Your task to perform on an android device: check data usage Image 0: 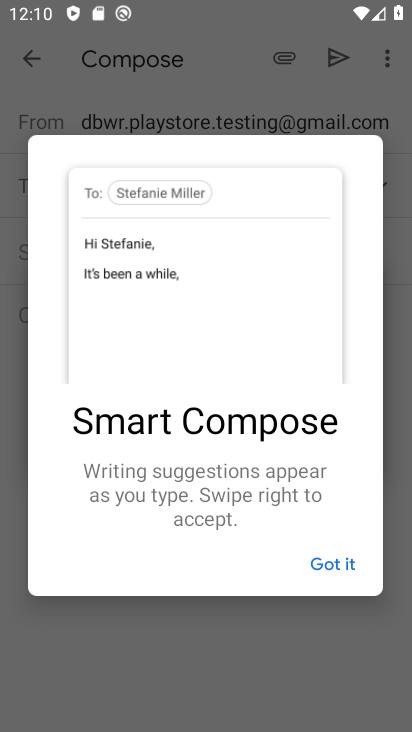
Step 0: press home button
Your task to perform on an android device: check data usage Image 1: 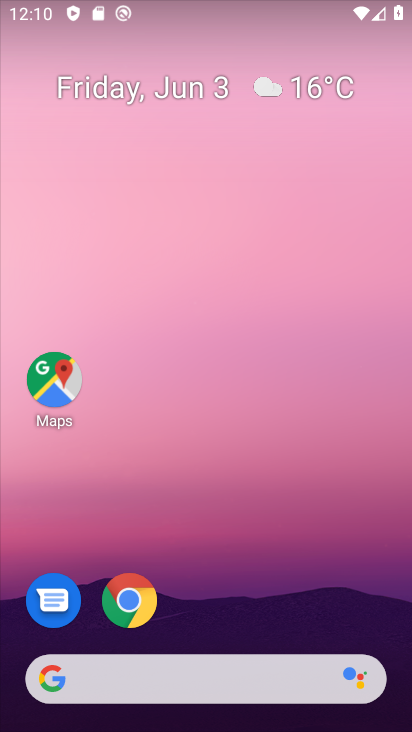
Step 1: drag from (270, 574) to (238, 200)
Your task to perform on an android device: check data usage Image 2: 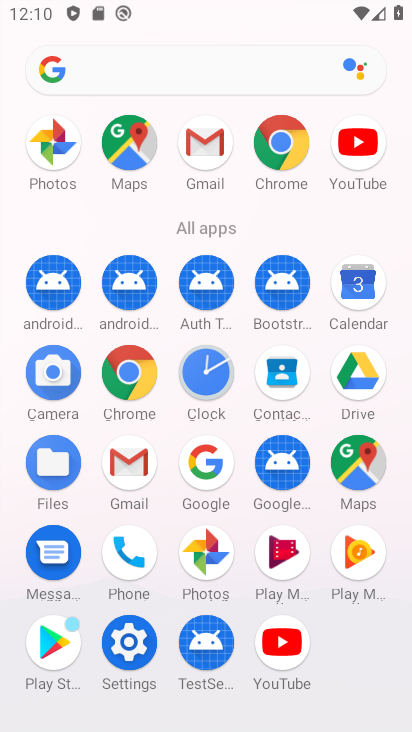
Step 2: click (136, 641)
Your task to perform on an android device: check data usage Image 3: 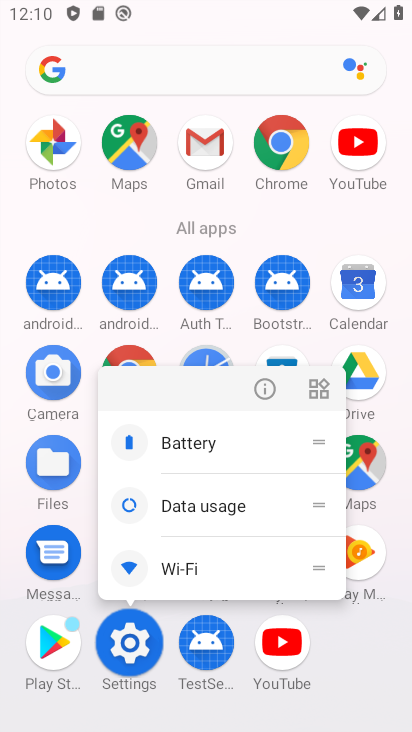
Step 3: click (136, 641)
Your task to perform on an android device: check data usage Image 4: 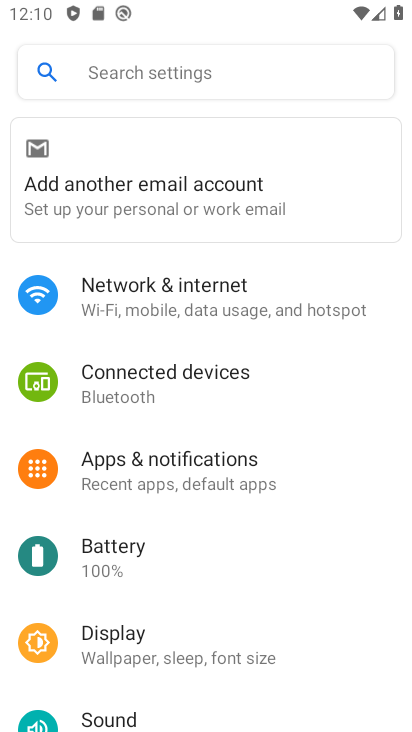
Step 4: drag from (296, 544) to (282, 228)
Your task to perform on an android device: check data usage Image 5: 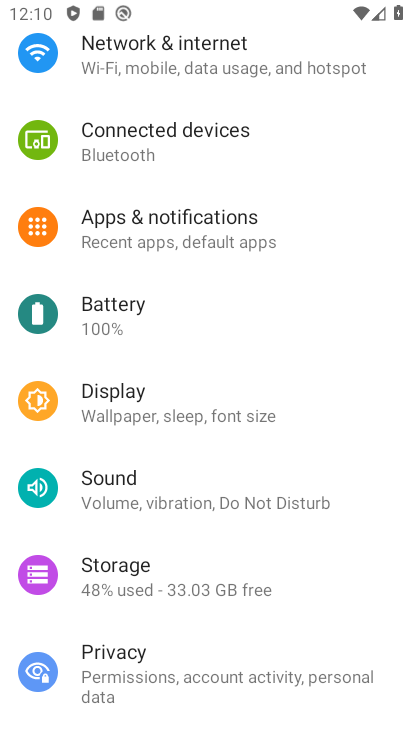
Step 5: drag from (274, 632) to (296, 391)
Your task to perform on an android device: check data usage Image 6: 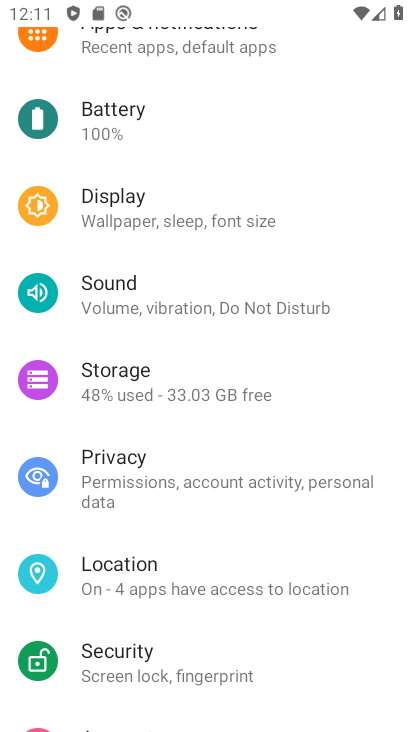
Step 6: drag from (204, 168) to (201, 622)
Your task to perform on an android device: check data usage Image 7: 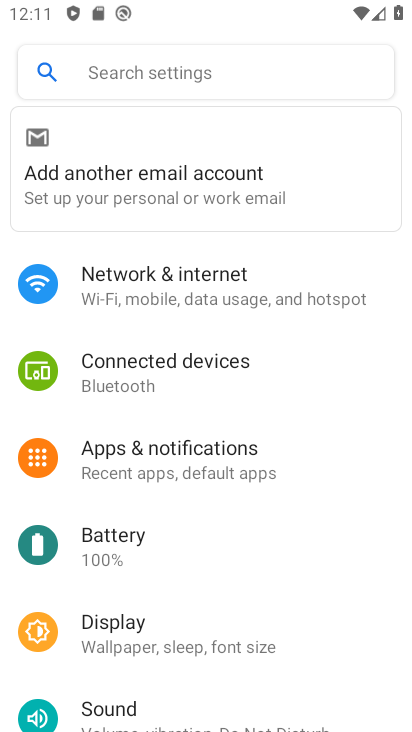
Step 7: click (143, 301)
Your task to perform on an android device: check data usage Image 8: 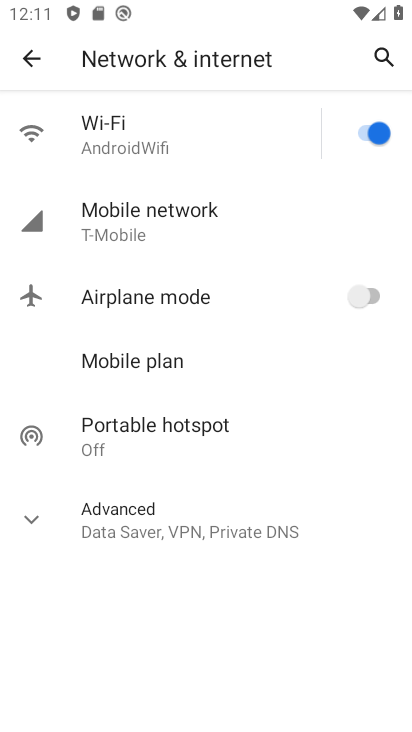
Step 8: click (221, 222)
Your task to perform on an android device: check data usage Image 9: 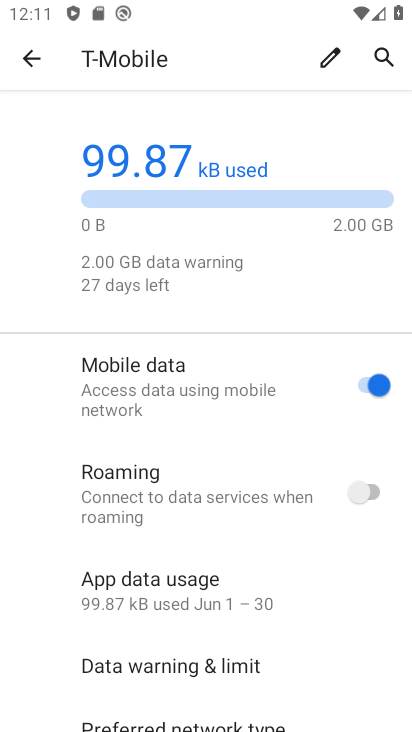
Step 9: task complete